Your task to perform on an android device: change text size in settings app Image 0: 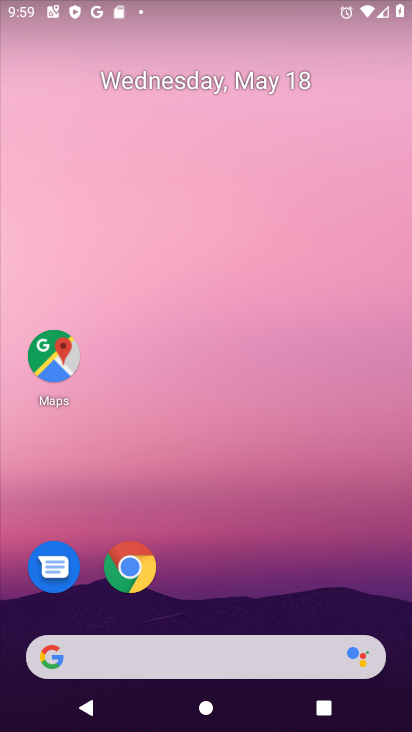
Step 0: drag from (209, 655) to (262, 43)
Your task to perform on an android device: change text size in settings app Image 1: 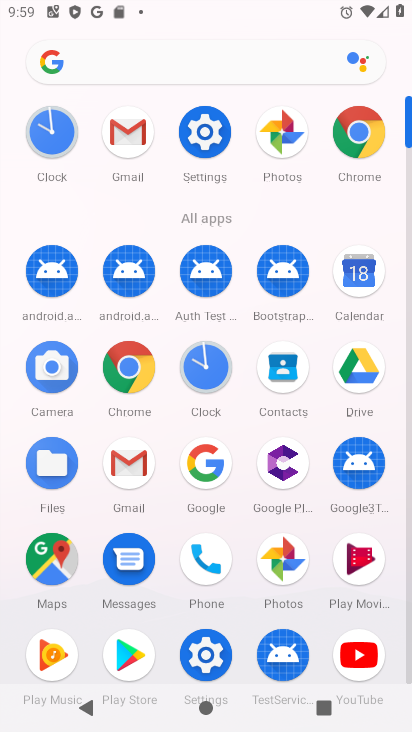
Step 1: click (210, 153)
Your task to perform on an android device: change text size in settings app Image 2: 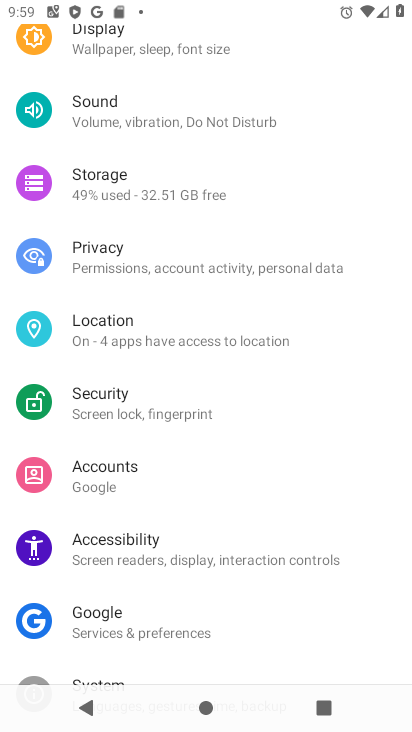
Step 2: click (112, 48)
Your task to perform on an android device: change text size in settings app Image 3: 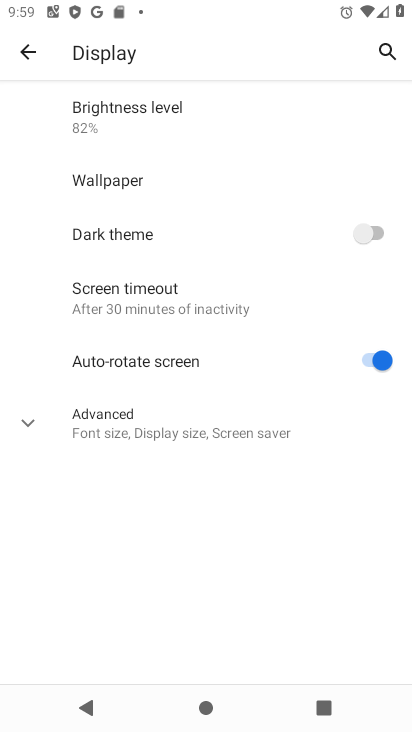
Step 3: click (139, 430)
Your task to perform on an android device: change text size in settings app Image 4: 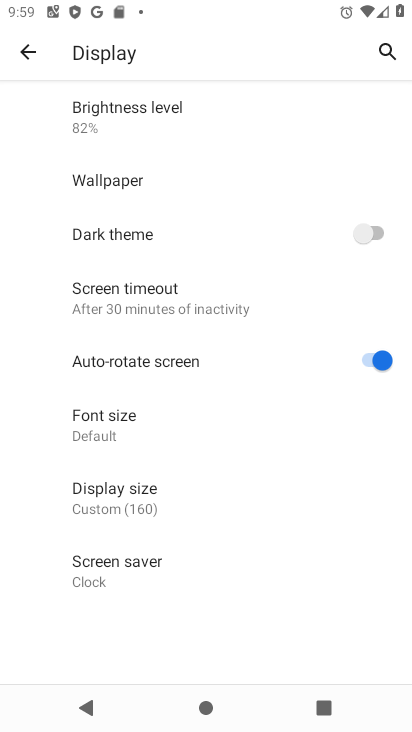
Step 4: click (110, 432)
Your task to perform on an android device: change text size in settings app Image 5: 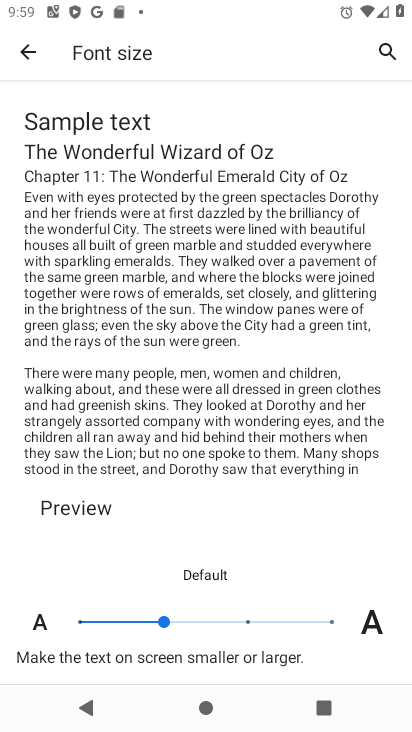
Step 5: click (84, 622)
Your task to perform on an android device: change text size in settings app Image 6: 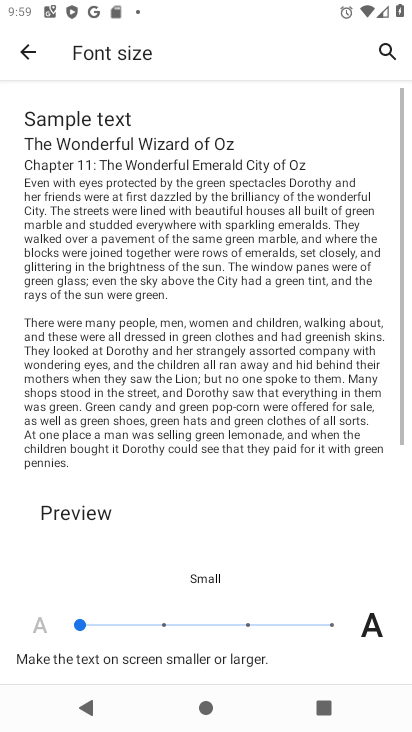
Step 6: task complete